Your task to perform on an android device: Go to sound settings Image 0: 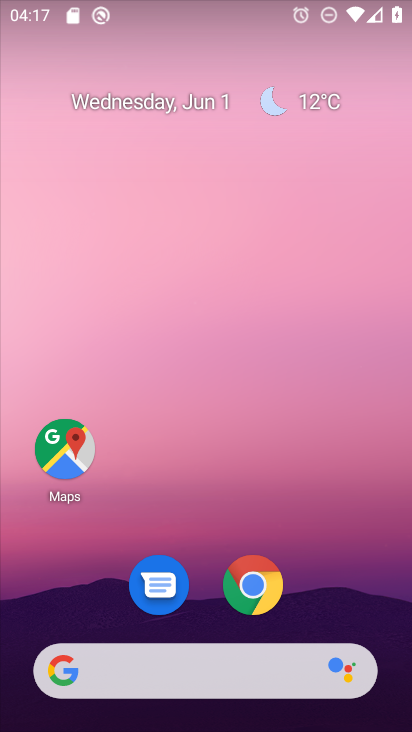
Step 0: drag from (205, 470) to (199, 8)
Your task to perform on an android device: Go to sound settings Image 1: 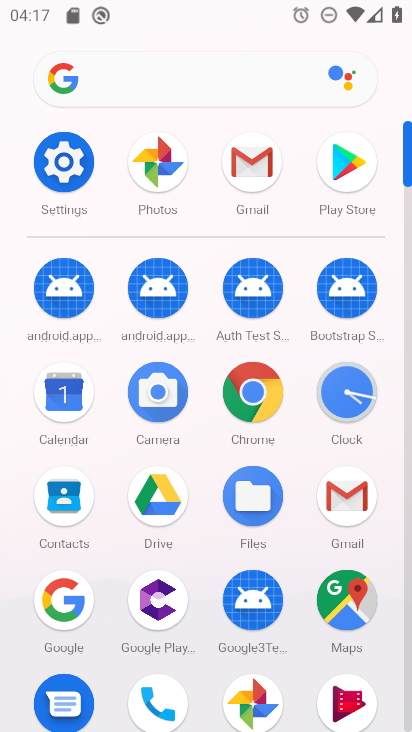
Step 1: click (71, 160)
Your task to perform on an android device: Go to sound settings Image 2: 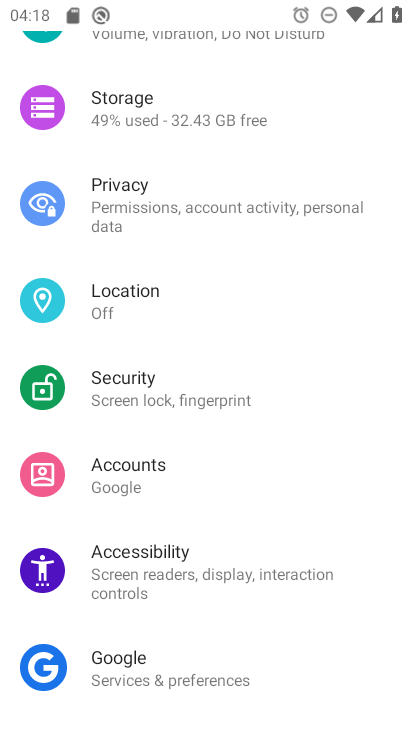
Step 2: drag from (219, 250) to (248, 641)
Your task to perform on an android device: Go to sound settings Image 3: 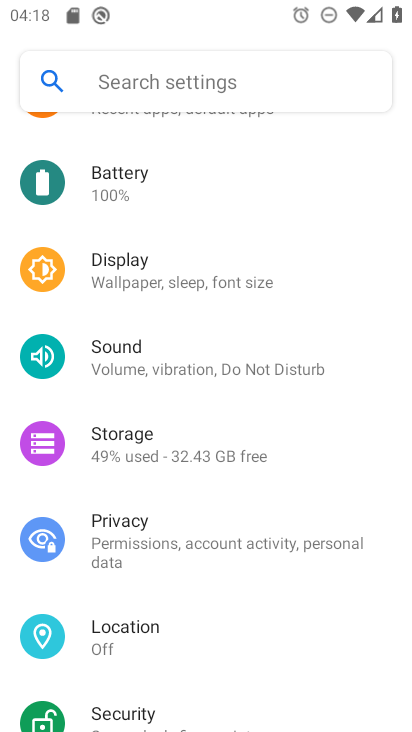
Step 3: click (217, 358)
Your task to perform on an android device: Go to sound settings Image 4: 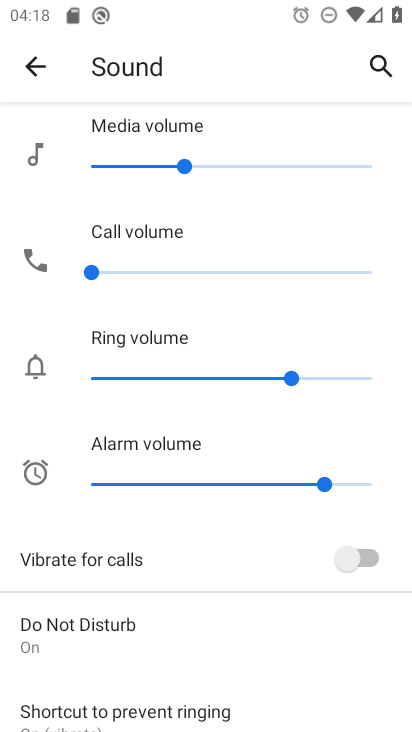
Step 4: task complete